Your task to perform on an android device: Open the phone app and click the voicemail tab. Image 0: 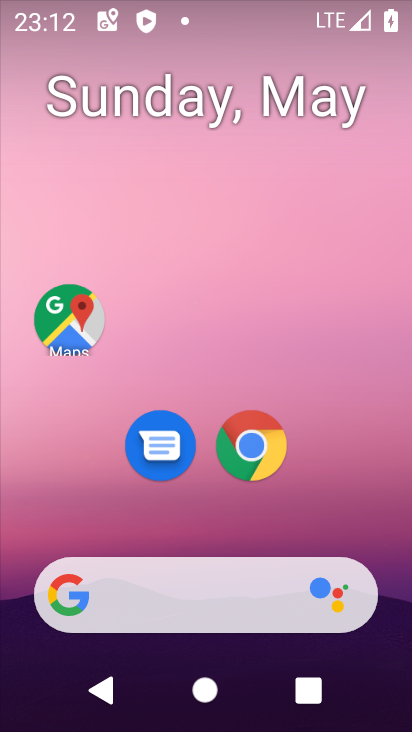
Step 0: drag from (215, 403) to (260, 156)
Your task to perform on an android device: Open the phone app and click the voicemail tab. Image 1: 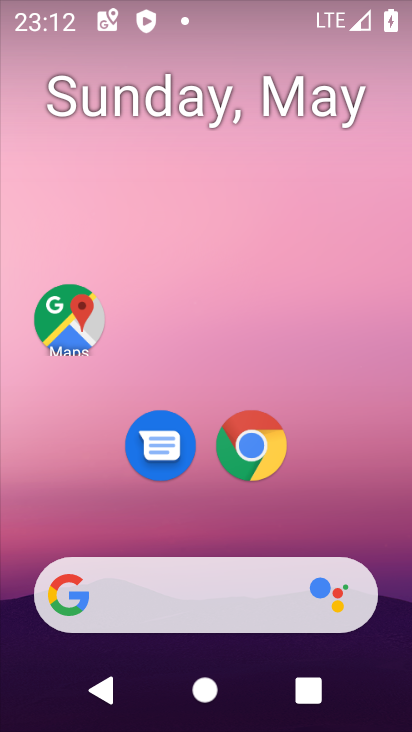
Step 1: drag from (211, 454) to (229, 124)
Your task to perform on an android device: Open the phone app and click the voicemail tab. Image 2: 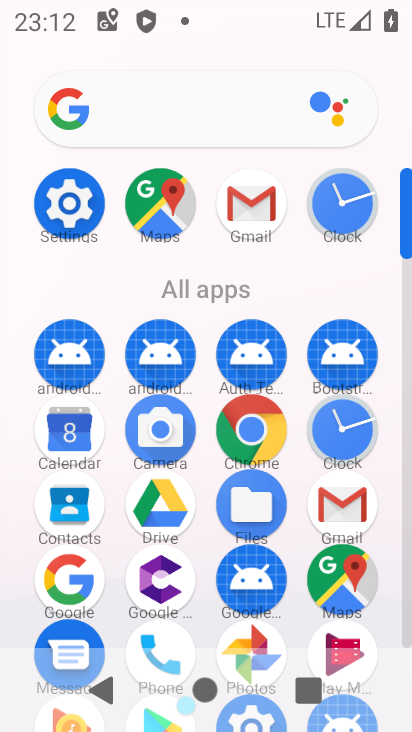
Step 2: drag from (207, 549) to (249, 131)
Your task to perform on an android device: Open the phone app and click the voicemail tab. Image 3: 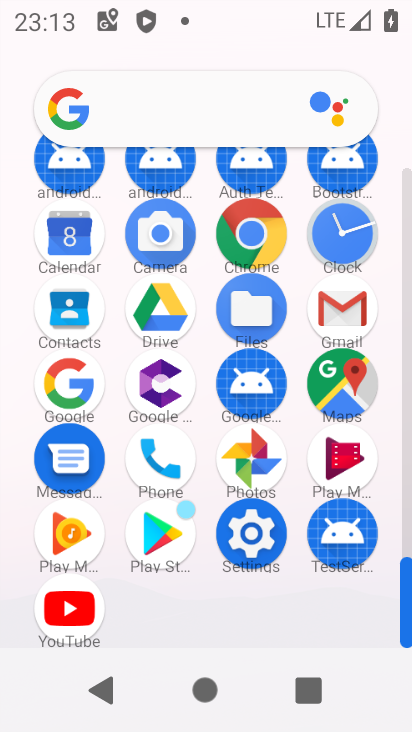
Step 3: click (148, 473)
Your task to perform on an android device: Open the phone app and click the voicemail tab. Image 4: 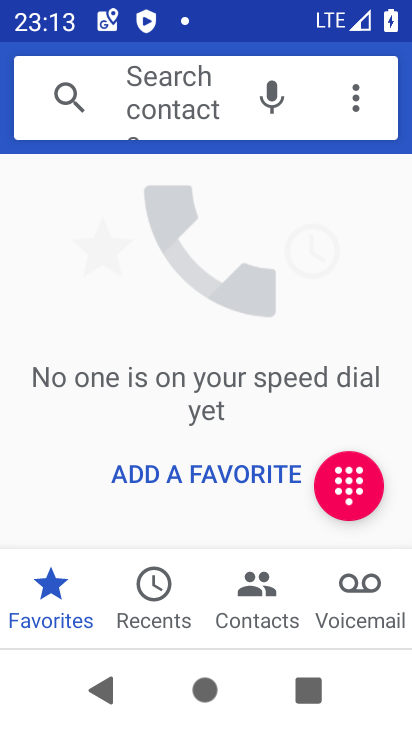
Step 4: click (364, 591)
Your task to perform on an android device: Open the phone app and click the voicemail tab. Image 5: 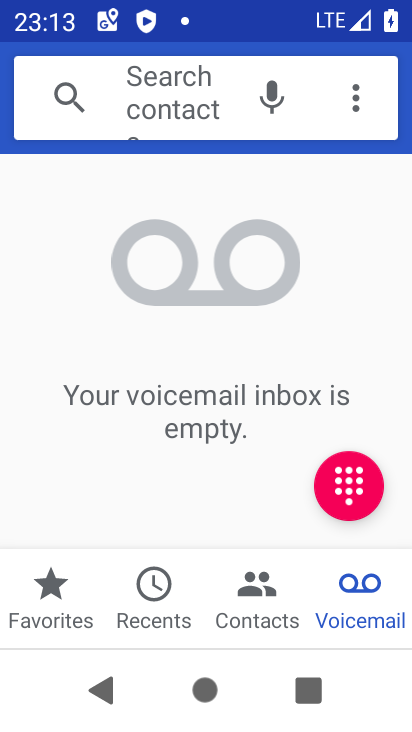
Step 5: task complete